Your task to perform on an android device: change text size in settings app Image 0: 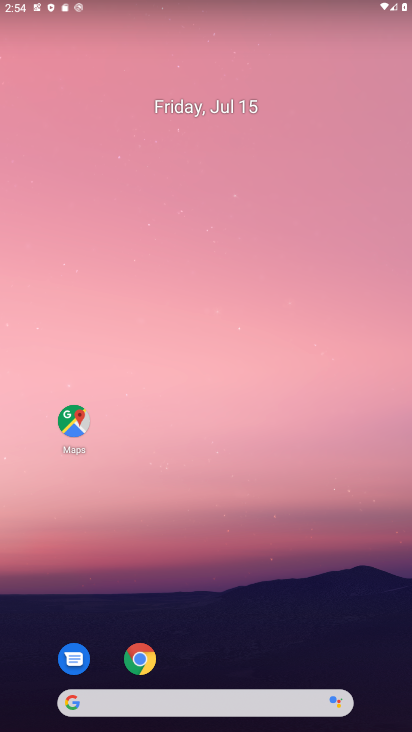
Step 0: drag from (165, 694) to (161, 276)
Your task to perform on an android device: change text size in settings app Image 1: 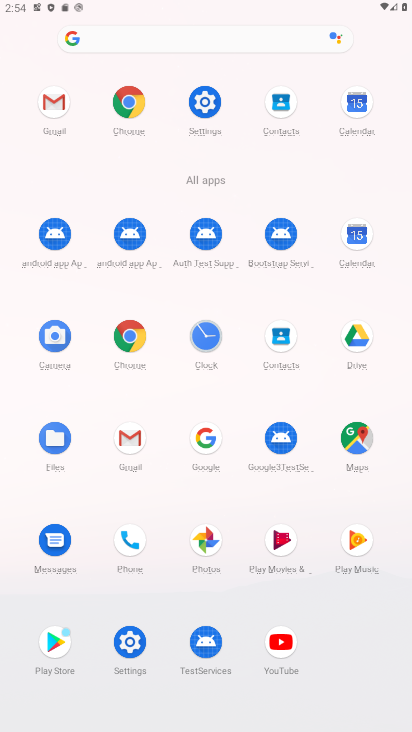
Step 1: click (206, 100)
Your task to perform on an android device: change text size in settings app Image 2: 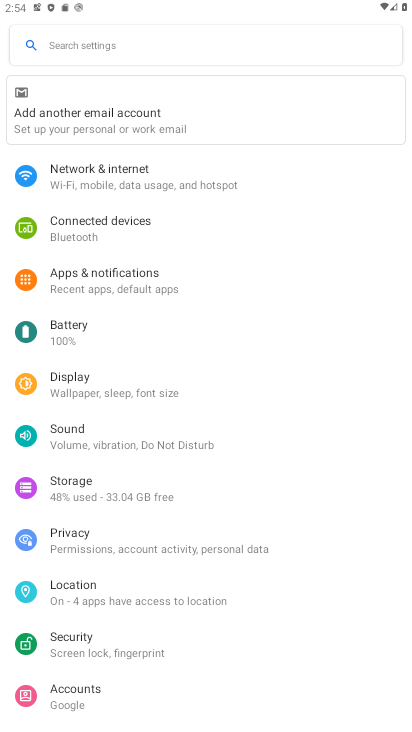
Step 2: drag from (114, 704) to (63, 231)
Your task to perform on an android device: change text size in settings app Image 3: 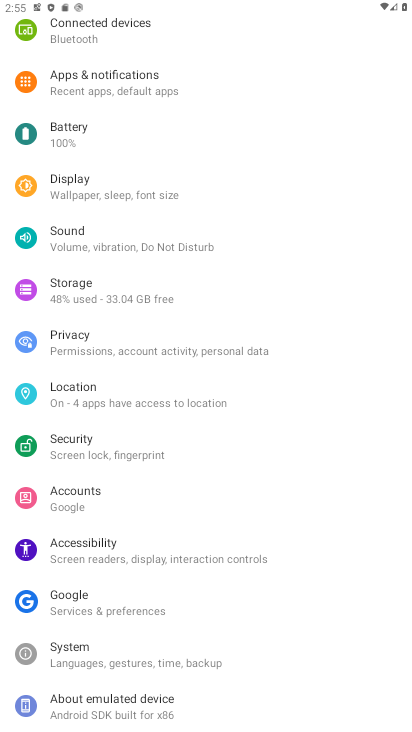
Step 3: click (80, 551)
Your task to perform on an android device: change text size in settings app Image 4: 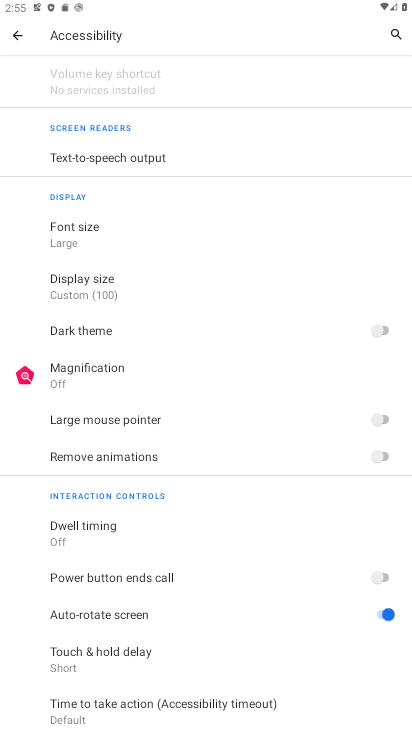
Step 4: click (90, 234)
Your task to perform on an android device: change text size in settings app Image 5: 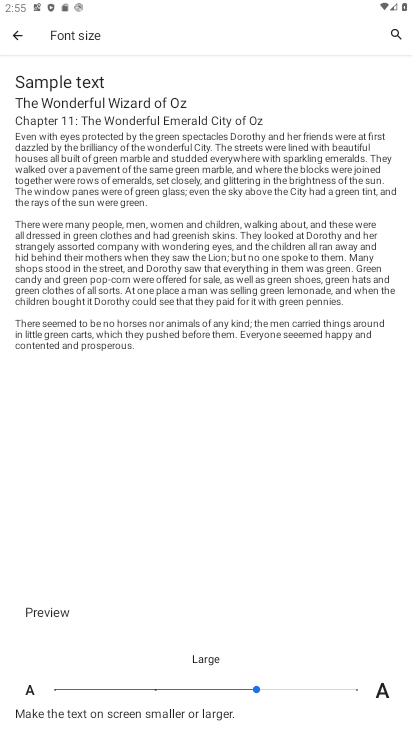
Step 5: click (215, 693)
Your task to perform on an android device: change text size in settings app Image 6: 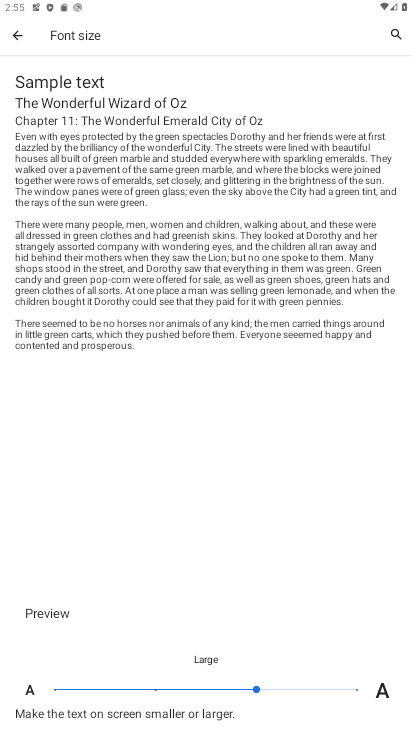
Step 6: click (215, 689)
Your task to perform on an android device: change text size in settings app Image 7: 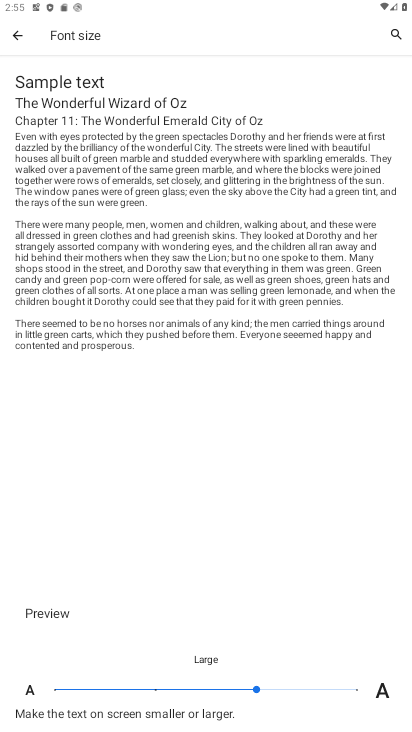
Step 7: click (261, 688)
Your task to perform on an android device: change text size in settings app Image 8: 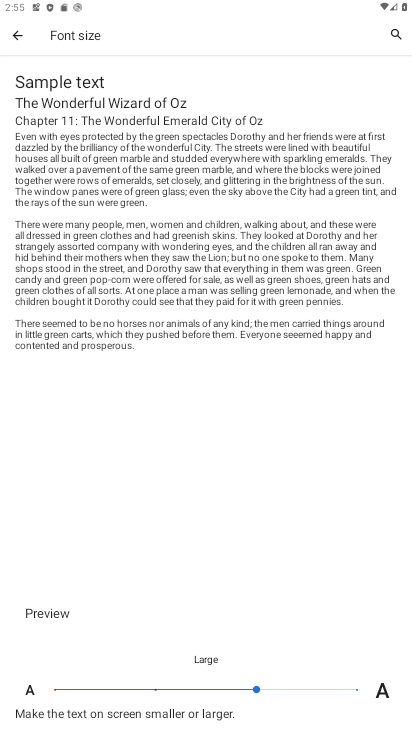
Step 8: click (189, 686)
Your task to perform on an android device: change text size in settings app Image 9: 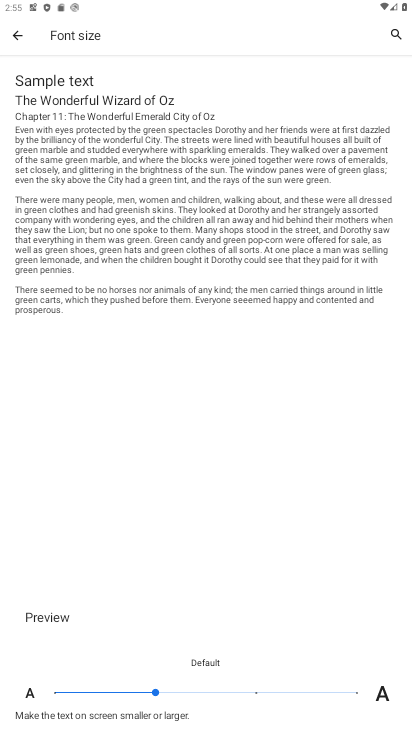
Step 9: task complete